Your task to perform on an android device: make emails show in primary in the gmail app Image 0: 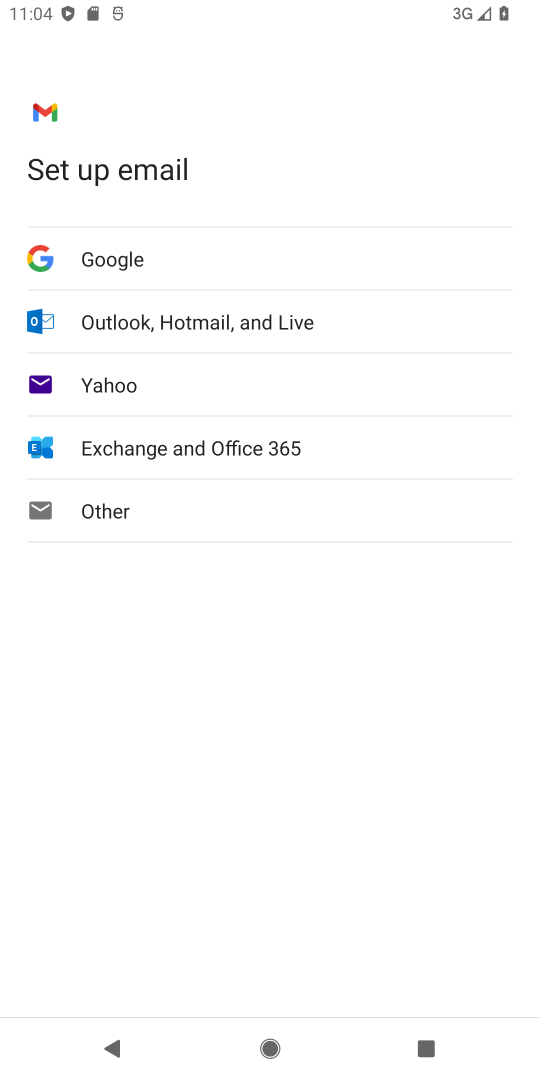
Step 0: press home button
Your task to perform on an android device: make emails show in primary in the gmail app Image 1: 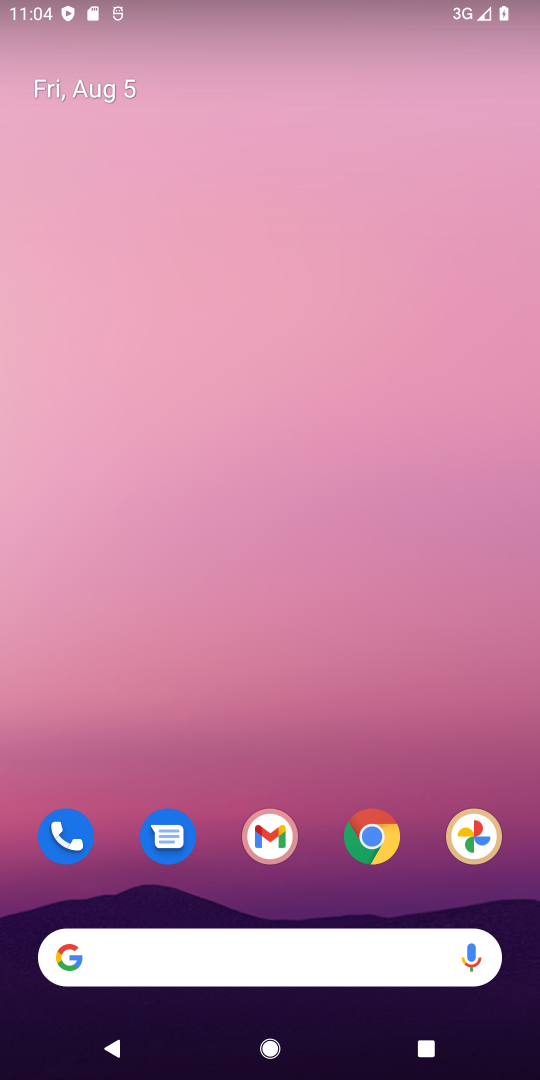
Step 1: drag from (415, 769) to (441, 195)
Your task to perform on an android device: make emails show in primary in the gmail app Image 2: 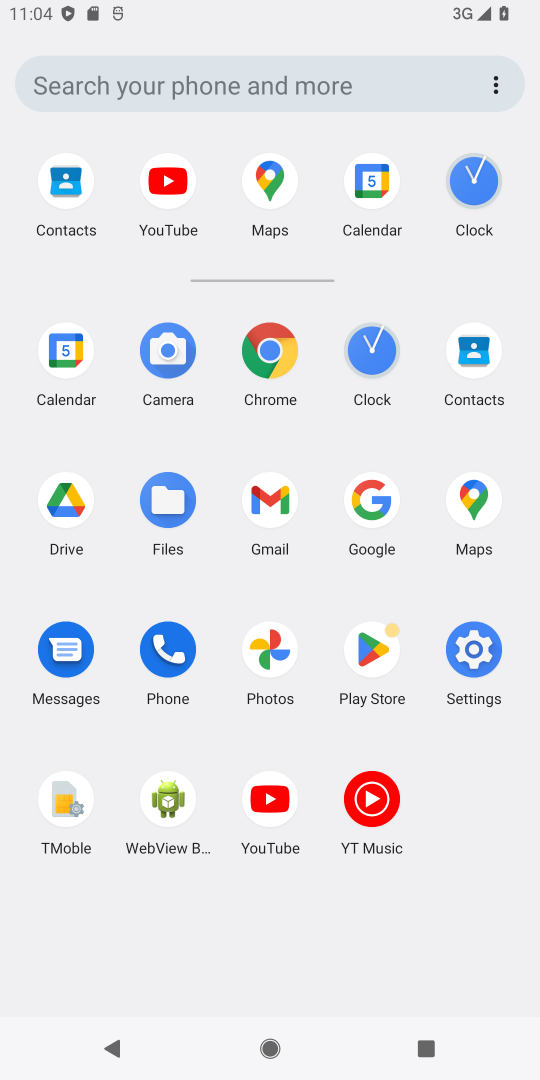
Step 2: click (271, 509)
Your task to perform on an android device: make emails show in primary in the gmail app Image 3: 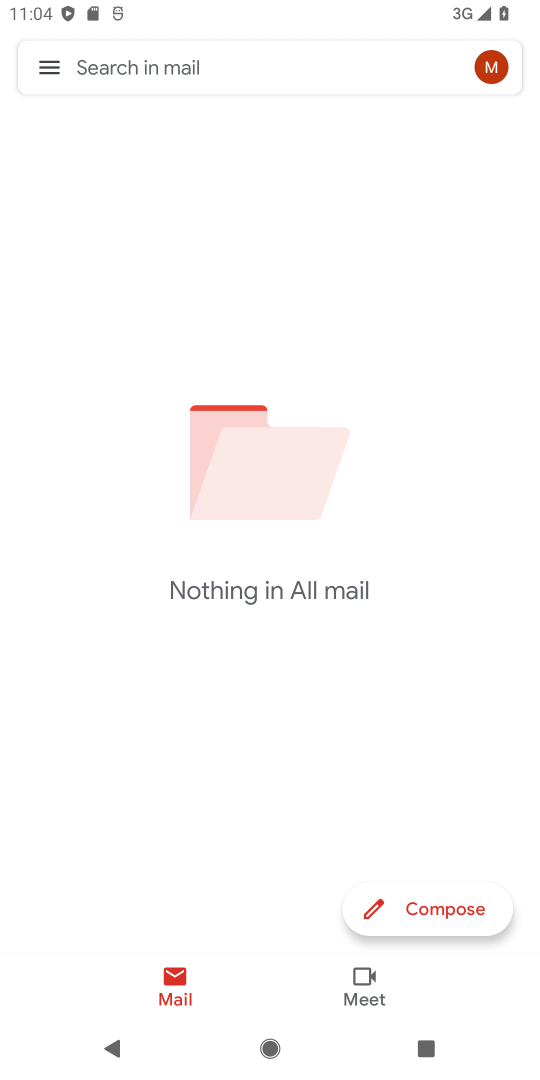
Step 3: click (47, 66)
Your task to perform on an android device: make emails show in primary in the gmail app Image 4: 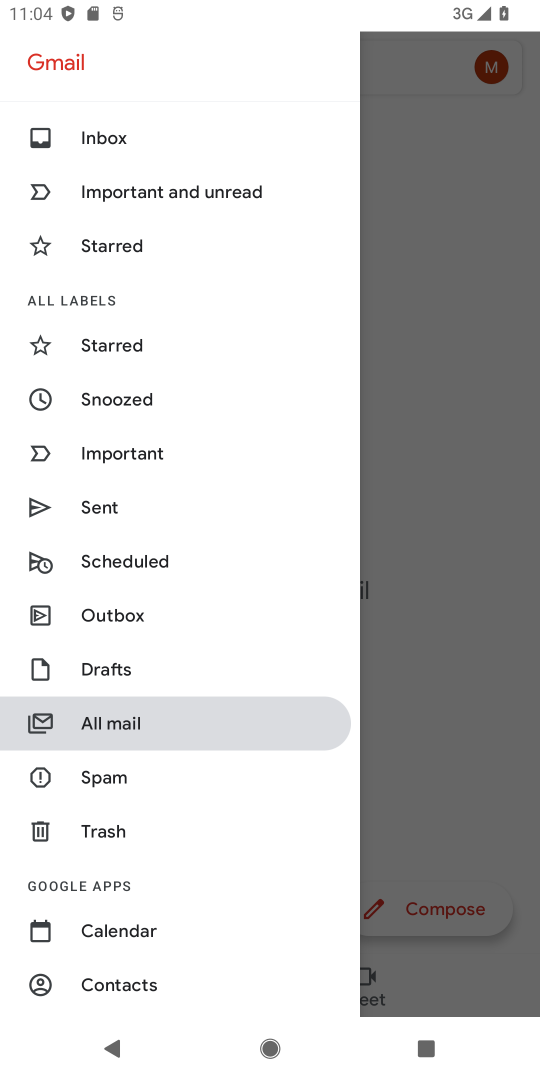
Step 4: drag from (182, 929) to (323, 456)
Your task to perform on an android device: make emails show in primary in the gmail app Image 5: 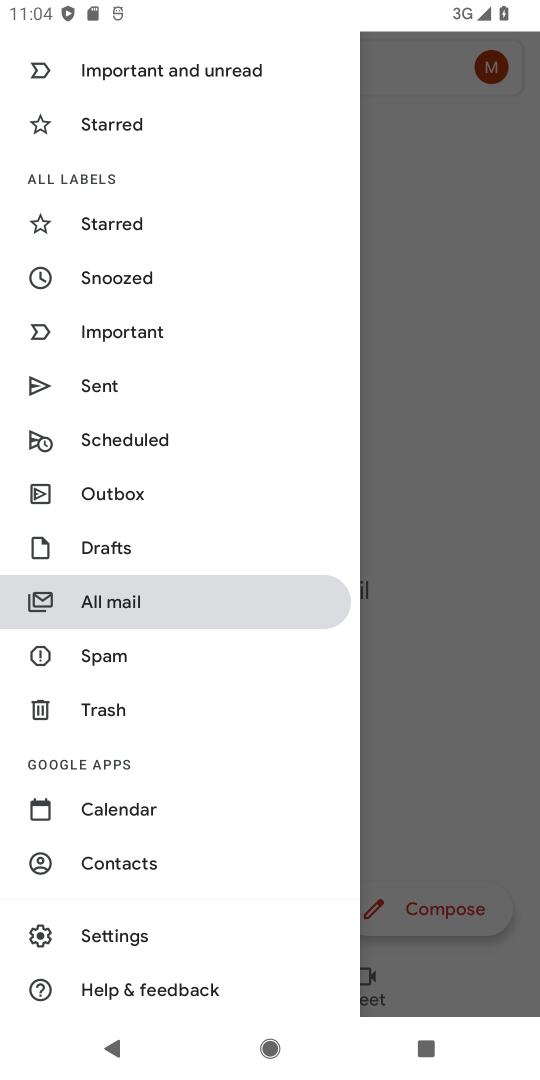
Step 5: click (117, 948)
Your task to perform on an android device: make emails show in primary in the gmail app Image 6: 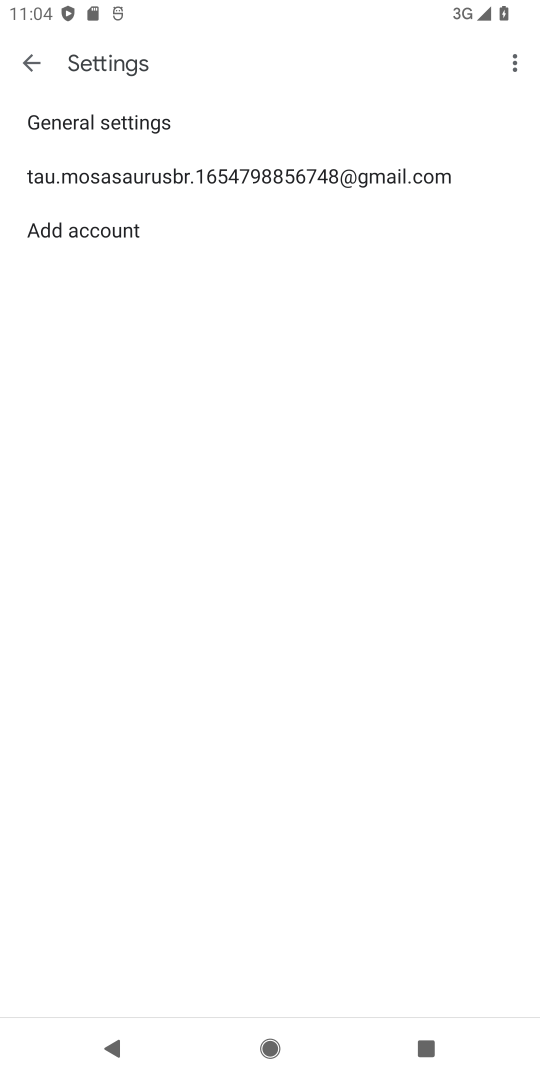
Step 6: click (95, 155)
Your task to perform on an android device: make emails show in primary in the gmail app Image 7: 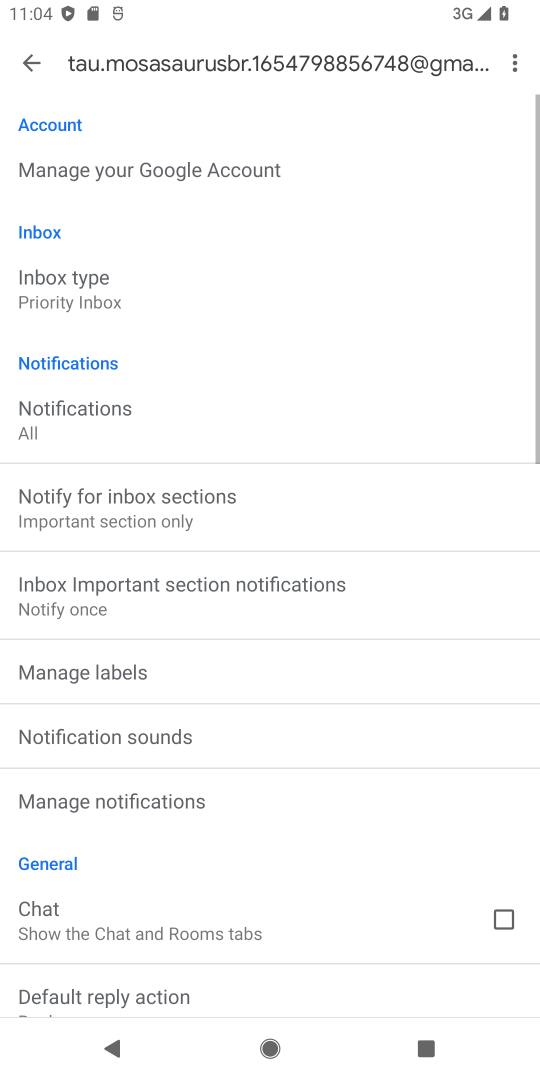
Step 7: click (84, 296)
Your task to perform on an android device: make emails show in primary in the gmail app Image 8: 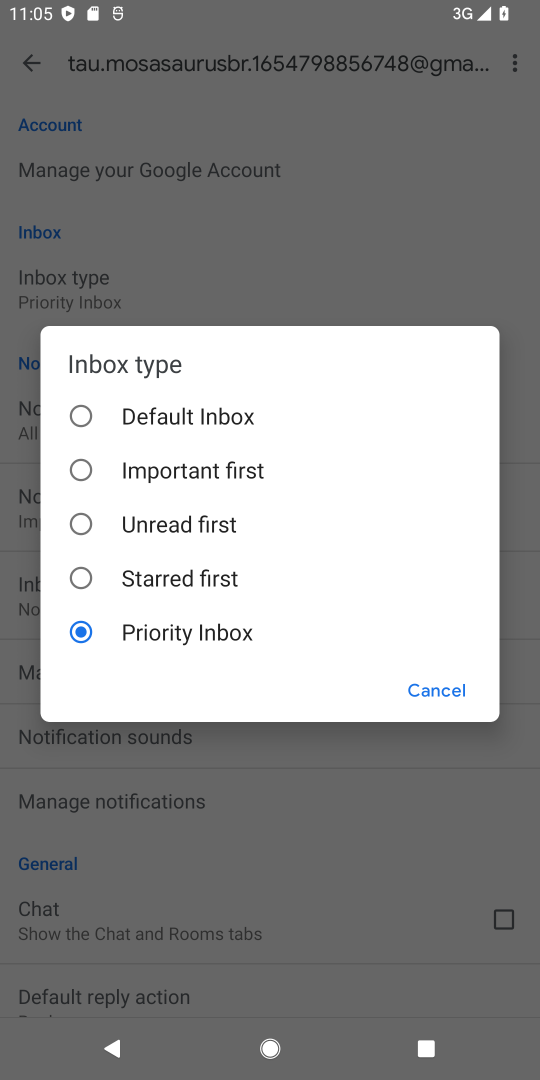
Step 8: click (156, 421)
Your task to perform on an android device: make emails show in primary in the gmail app Image 9: 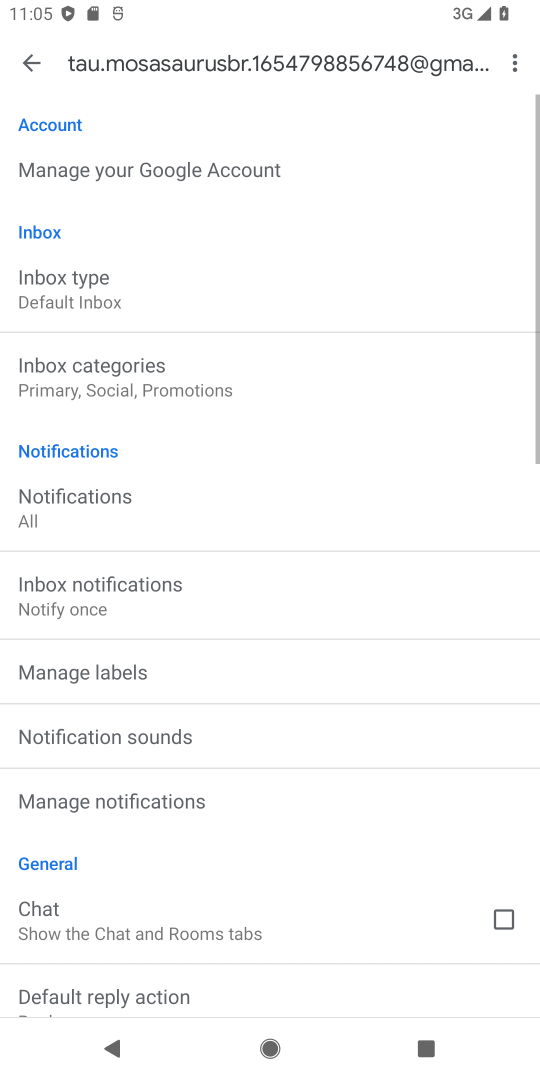
Step 9: click (137, 392)
Your task to perform on an android device: make emails show in primary in the gmail app Image 10: 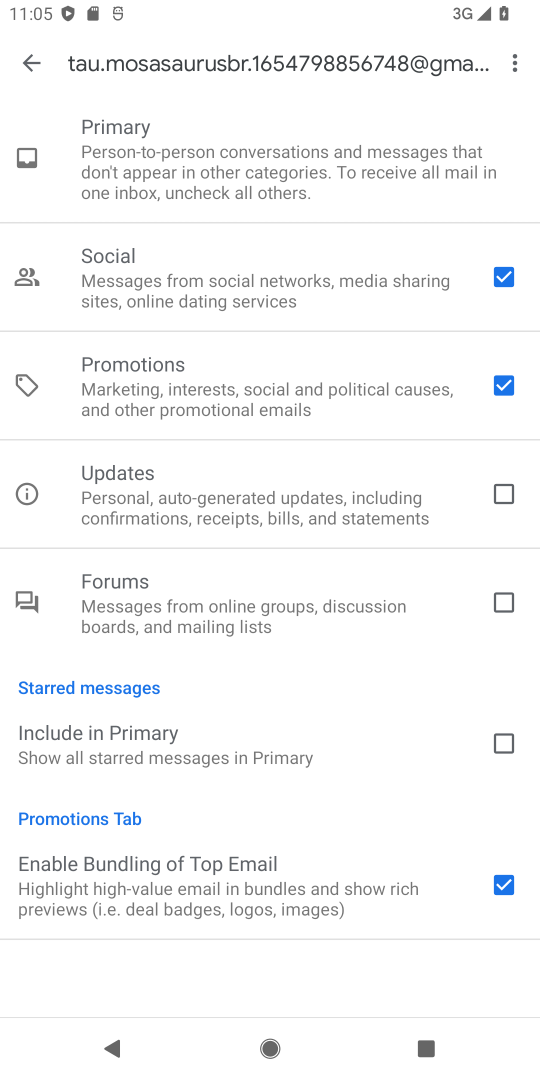
Step 10: task complete